Your task to perform on an android device: Open Google Image 0: 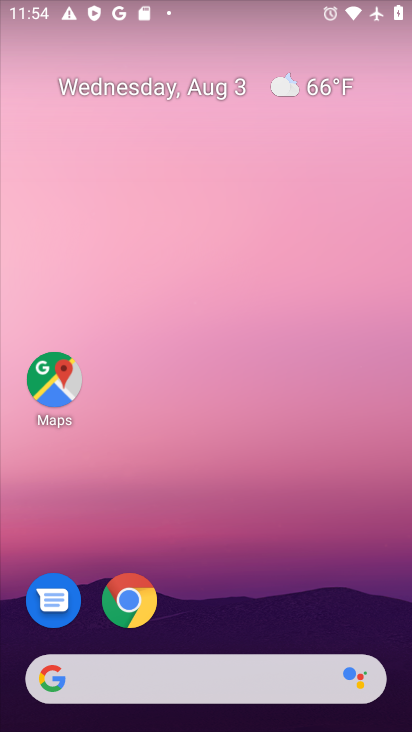
Step 0: drag from (203, 626) to (180, 3)
Your task to perform on an android device: Open Google Image 1: 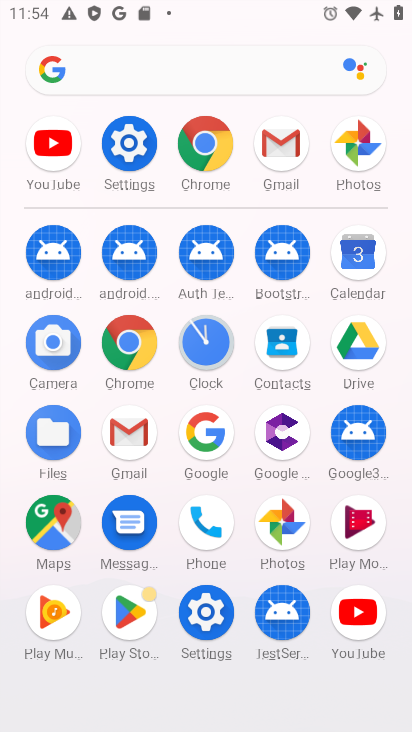
Step 1: click (220, 437)
Your task to perform on an android device: Open Google Image 2: 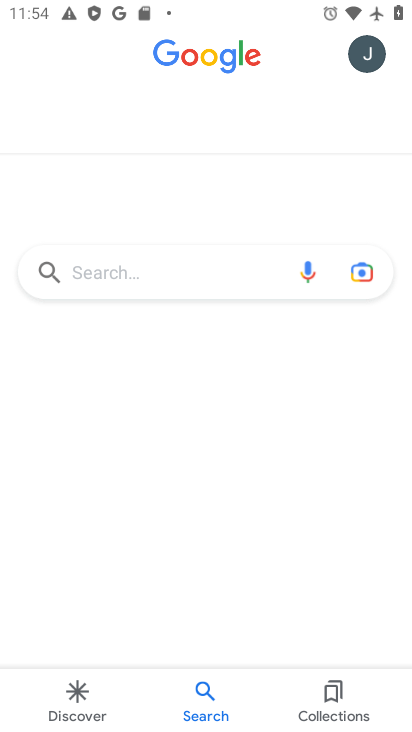
Step 2: click (158, 285)
Your task to perform on an android device: Open Google Image 3: 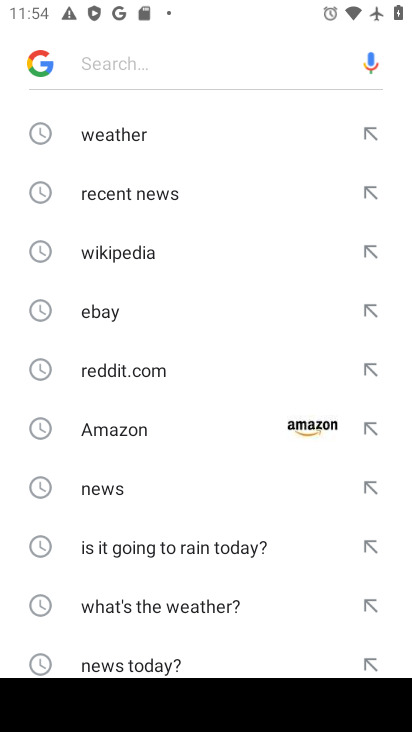
Step 3: task complete